Your task to perform on an android device: Open the Play Movies app and select the watchlist tab. Image 0: 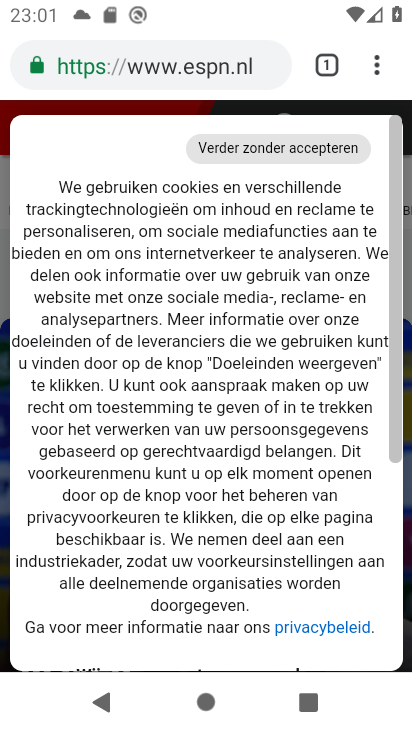
Step 0: press home button
Your task to perform on an android device: Open the Play Movies app and select the watchlist tab. Image 1: 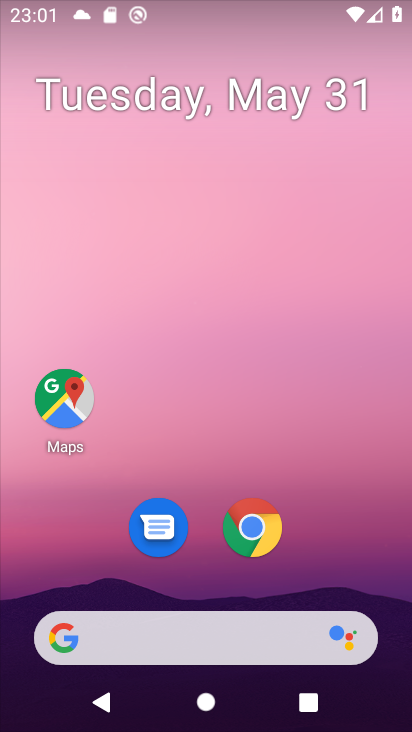
Step 1: drag from (310, 559) to (174, 19)
Your task to perform on an android device: Open the Play Movies app and select the watchlist tab. Image 2: 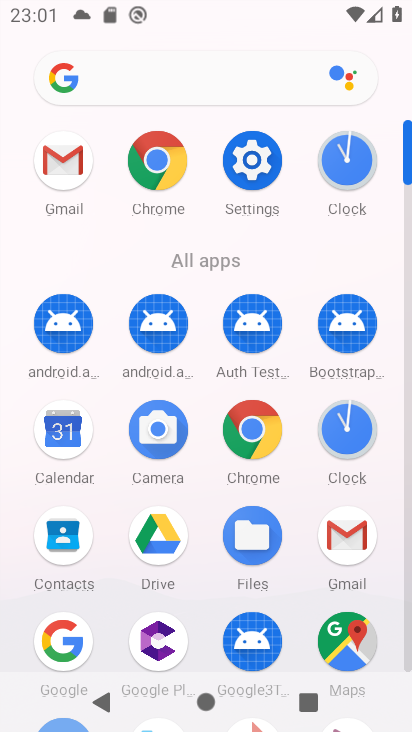
Step 2: drag from (301, 559) to (260, 73)
Your task to perform on an android device: Open the Play Movies app and select the watchlist tab. Image 3: 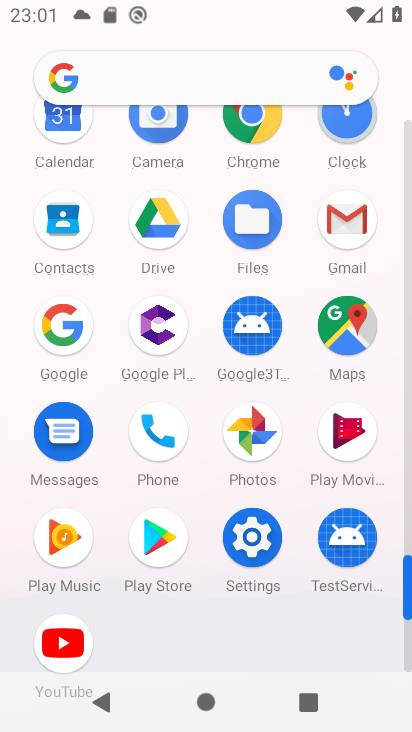
Step 3: click (348, 448)
Your task to perform on an android device: Open the Play Movies app and select the watchlist tab. Image 4: 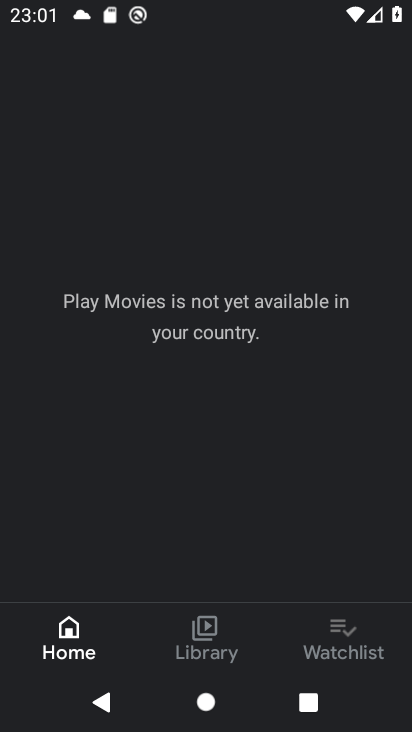
Step 4: click (348, 634)
Your task to perform on an android device: Open the Play Movies app and select the watchlist tab. Image 5: 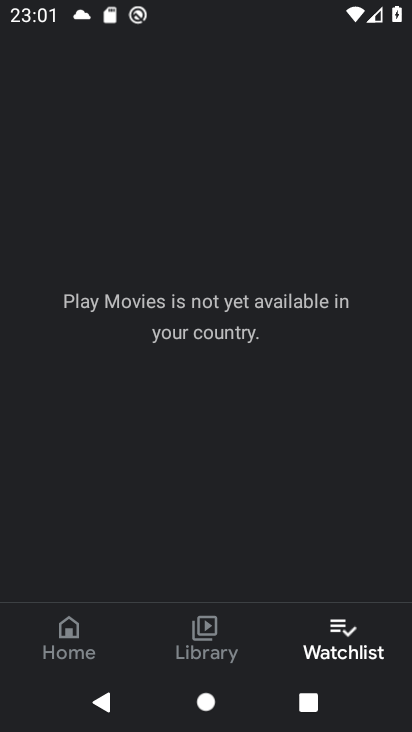
Step 5: task complete